Your task to perform on an android device: Open Reddit Image 0: 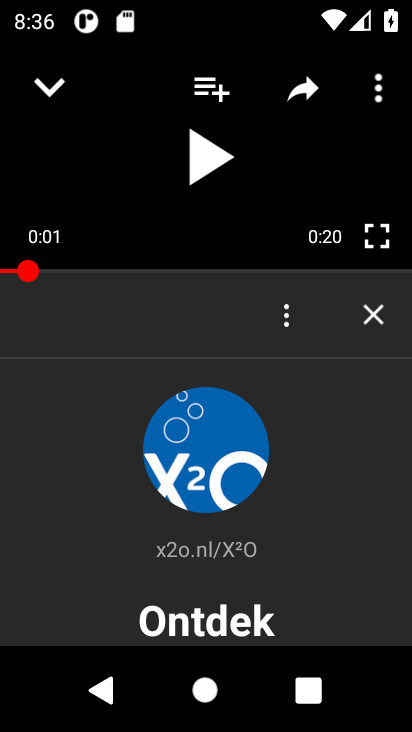
Step 0: press home button
Your task to perform on an android device: Open Reddit Image 1: 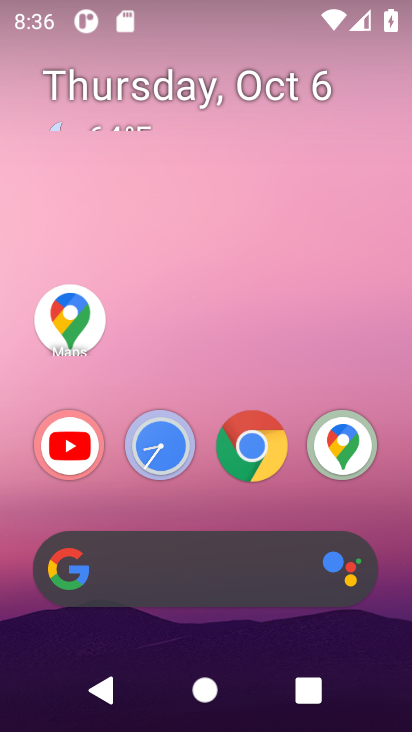
Step 1: click (227, 461)
Your task to perform on an android device: Open Reddit Image 2: 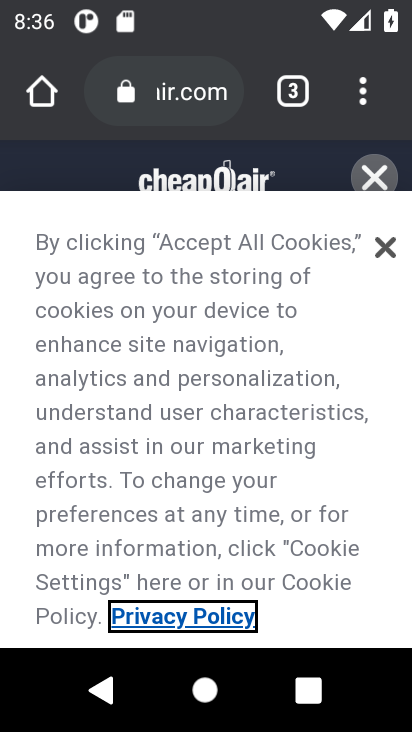
Step 2: click (382, 248)
Your task to perform on an android device: Open Reddit Image 3: 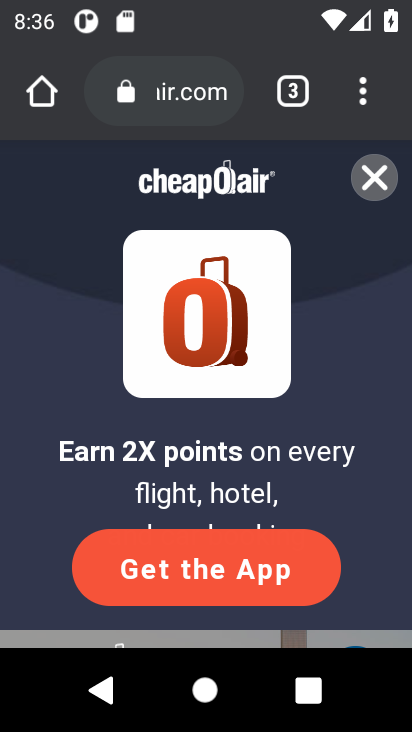
Step 3: click (214, 114)
Your task to perform on an android device: Open Reddit Image 4: 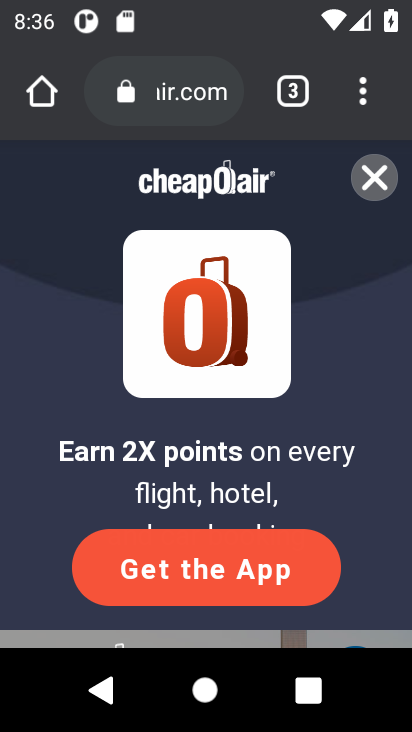
Step 4: click (214, 114)
Your task to perform on an android device: Open Reddit Image 5: 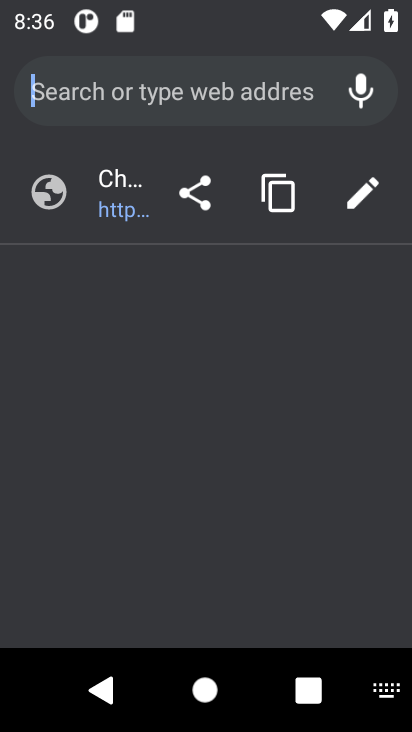
Step 5: type "reddit.com"
Your task to perform on an android device: Open Reddit Image 6: 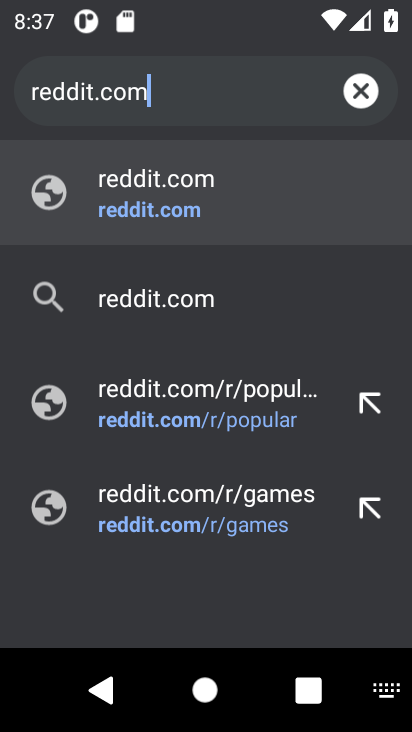
Step 6: click (161, 232)
Your task to perform on an android device: Open Reddit Image 7: 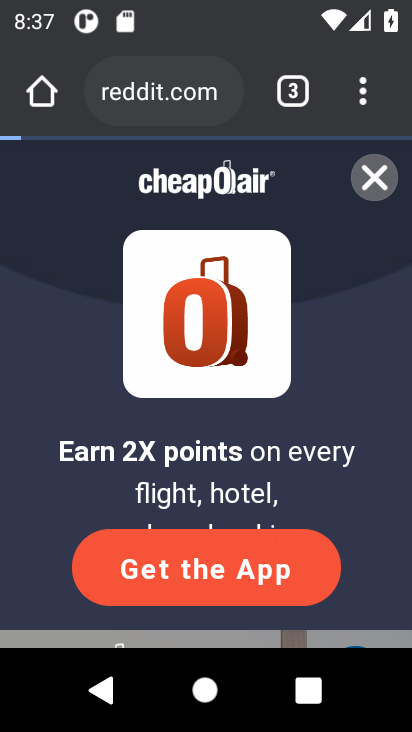
Step 7: task complete